Your task to perform on an android device: Open location settings Image 0: 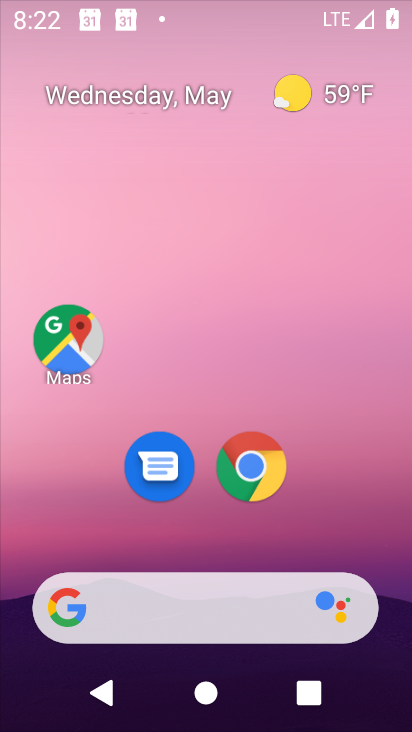
Step 0: click (257, 452)
Your task to perform on an android device: Open location settings Image 1: 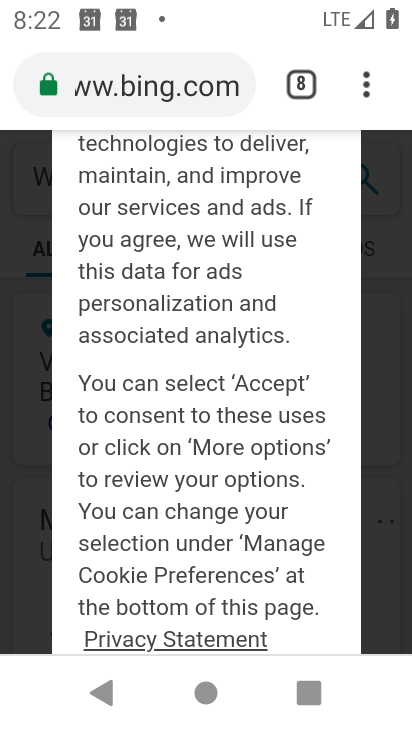
Step 1: click (353, 75)
Your task to perform on an android device: Open location settings Image 2: 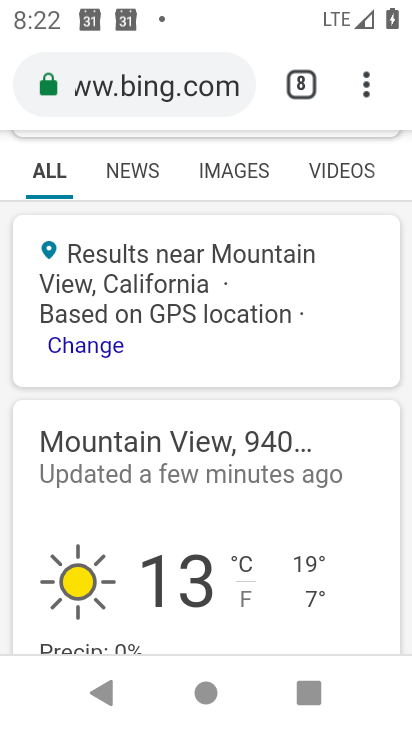
Step 2: click (342, 75)
Your task to perform on an android device: Open location settings Image 3: 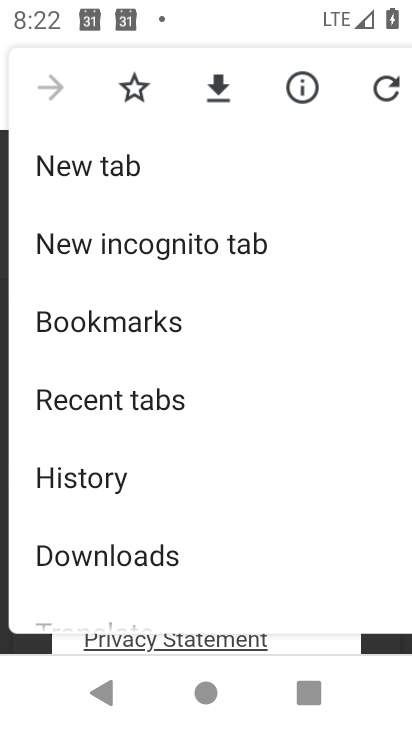
Step 3: click (116, 166)
Your task to perform on an android device: Open location settings Image 4: 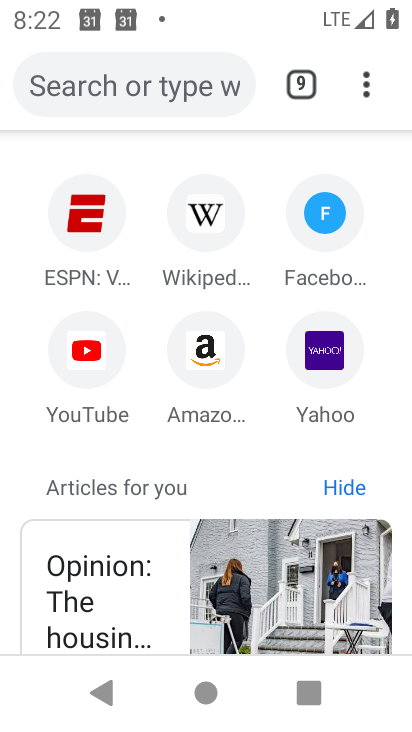
Step 4: press home button
Your task to perform on an android device: Open location settings Image 5: 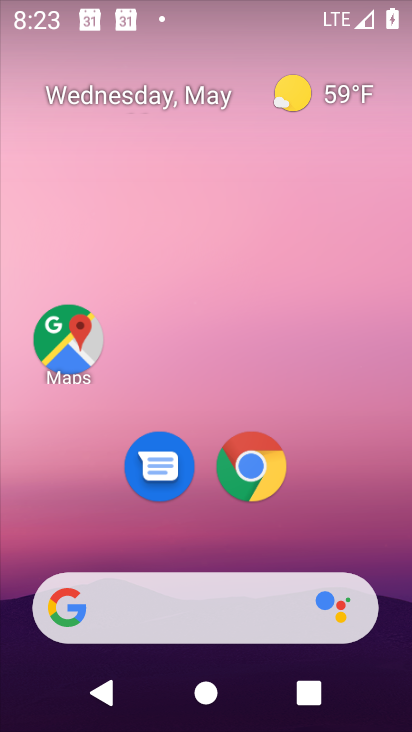
Step 5: drag from (313, 531) to (324, 243)
Your task to perform on an android device: Open location settings Image 6: 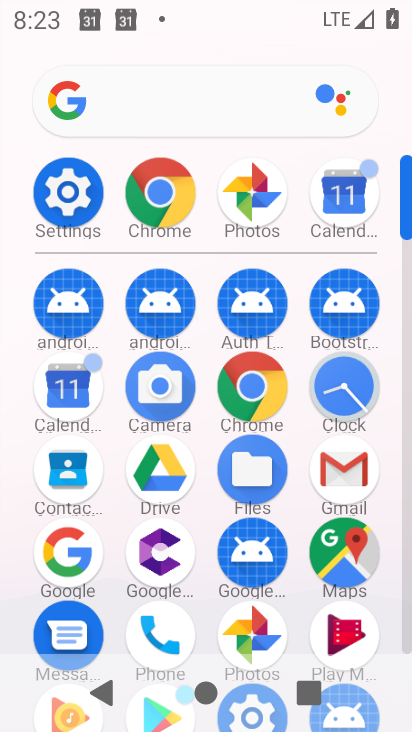
Step 6: click (76, 189)
Your task to perform on an android device: Open location settings Image 7: 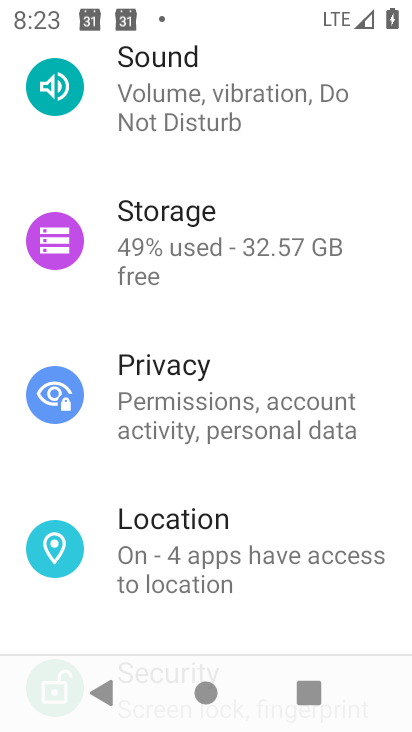
Step 7: click (206, 553)
Your task to perform on an android device: Open location settings Image 8: 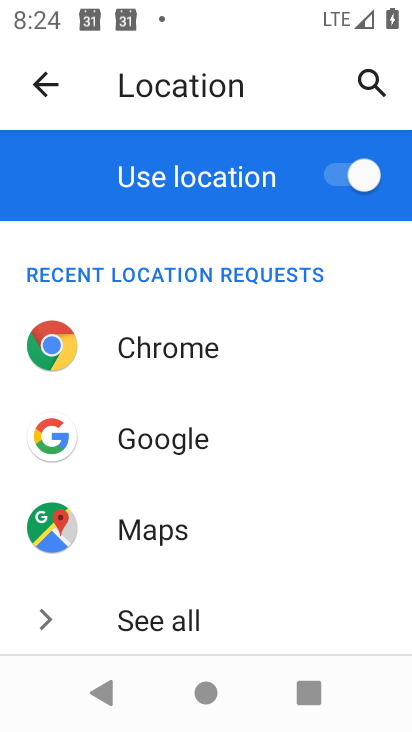
Step 8: task complete